Your task to perform on an android device: see creations saved in the google photos Image 0: 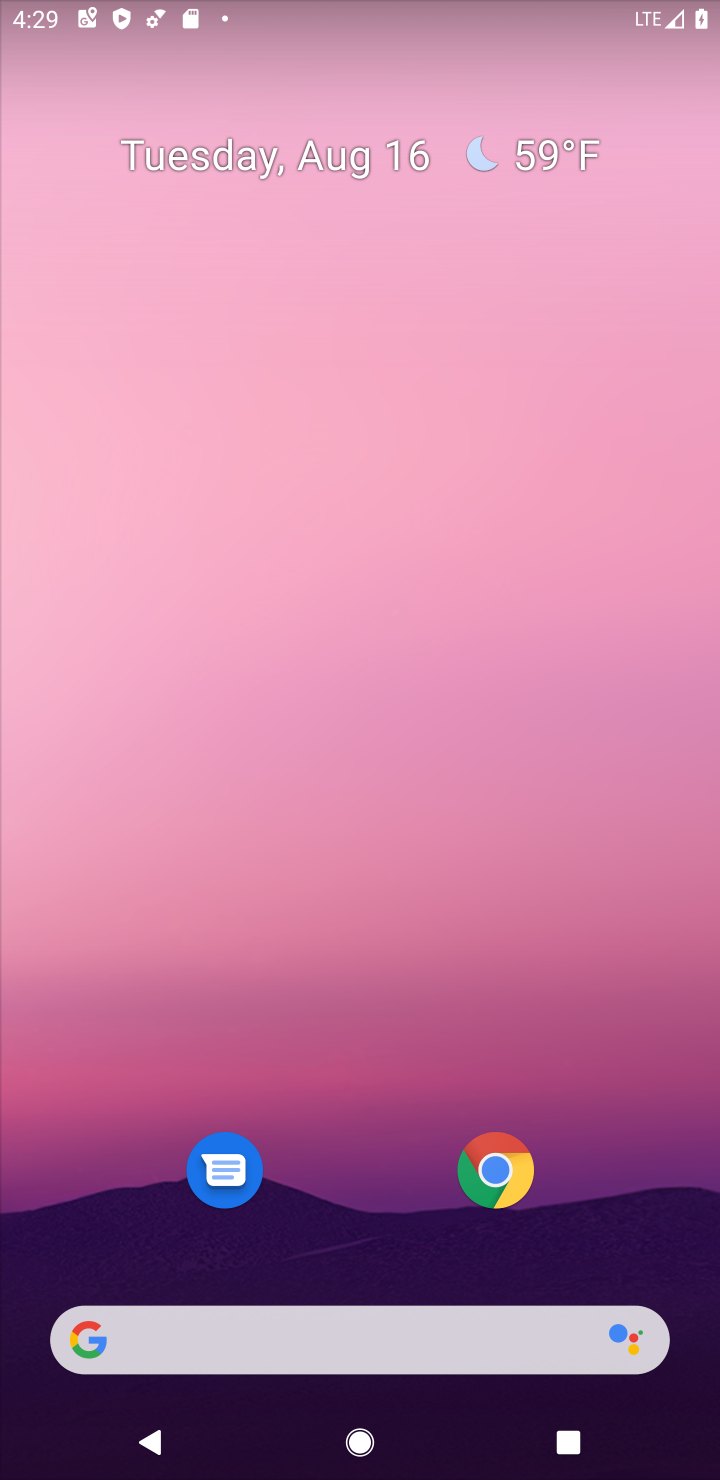
Step 0: drag from (309, 1062) to (585, 15)
Your task to perform on an android device: see creations saved in the google photos Image 1: 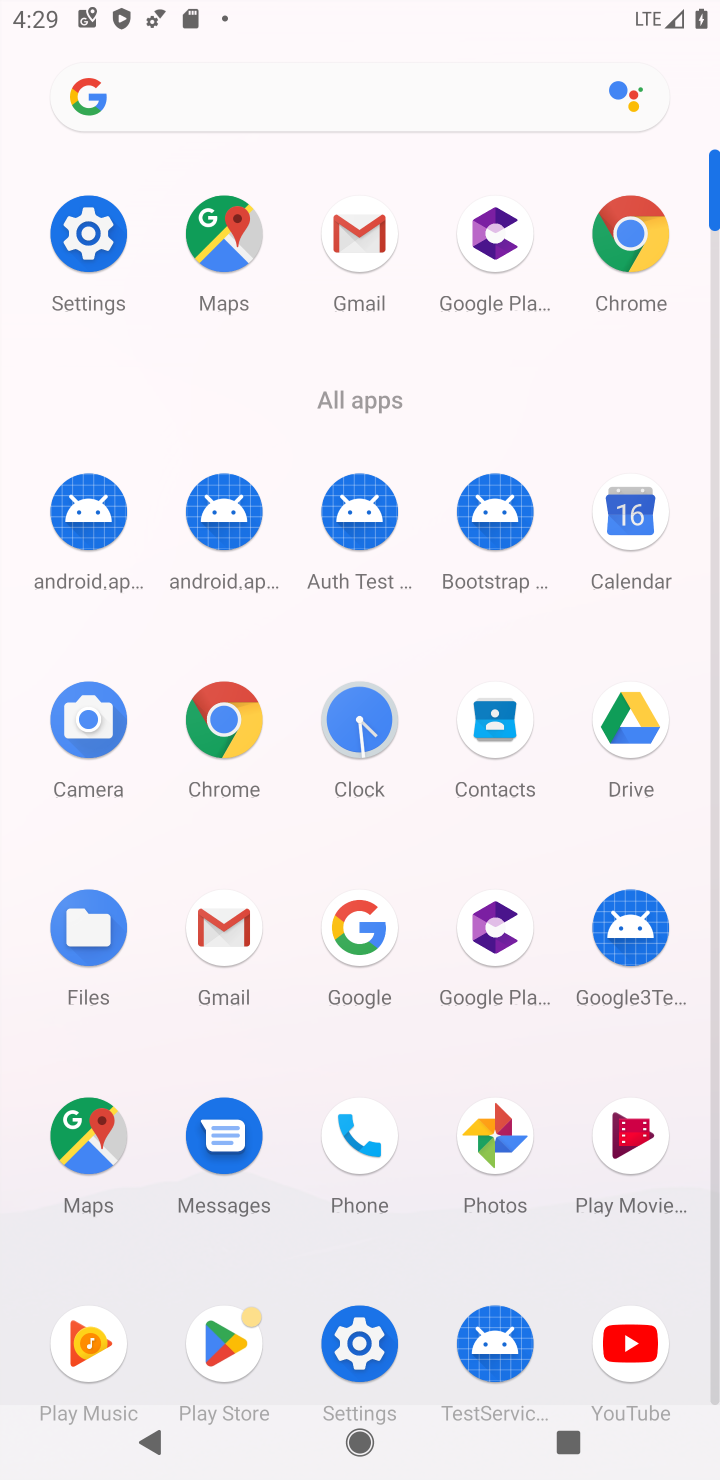
Step 1: click (493, 1315)
Your task to perform on an android device: see creations saved in the google photos Image 2: 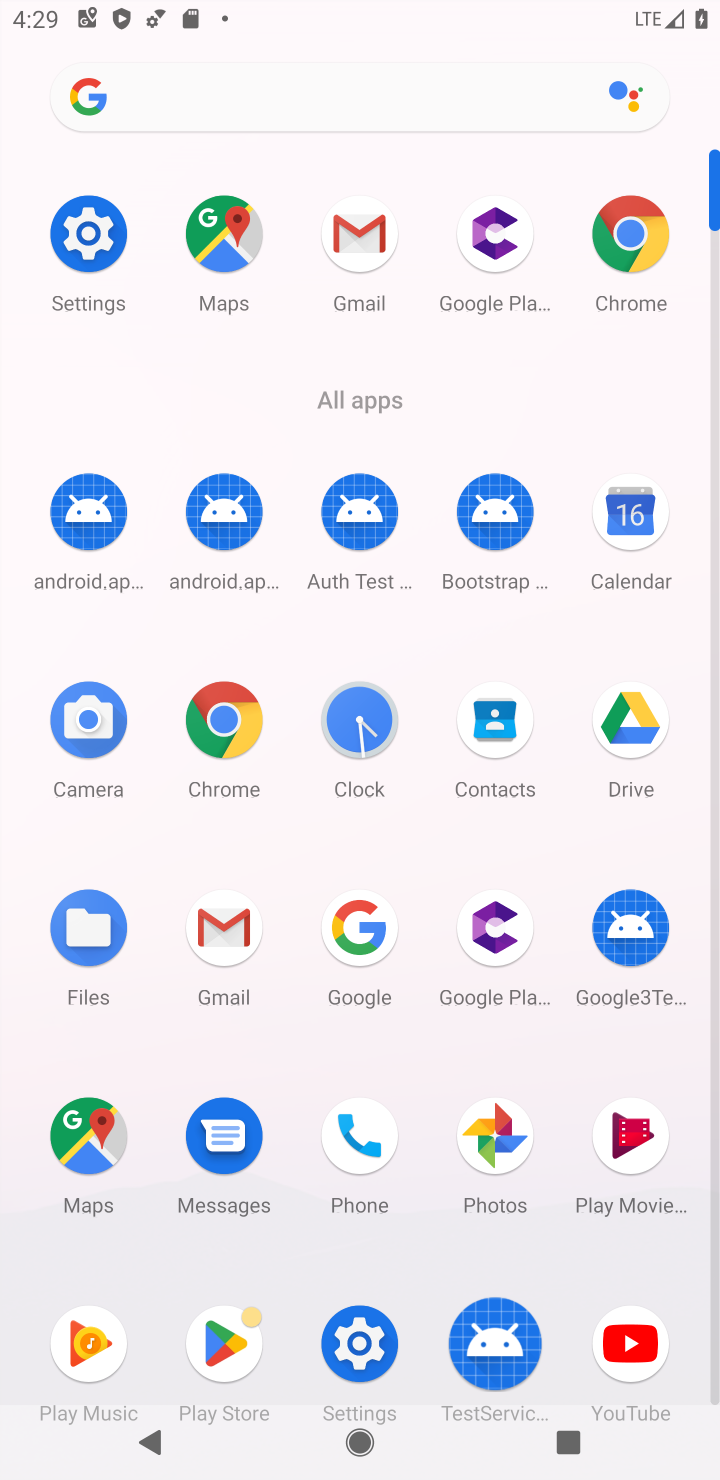
Step 2: click (498, 1163)
Your task to perform on an android device: see creations saved in the google photos Image 3: 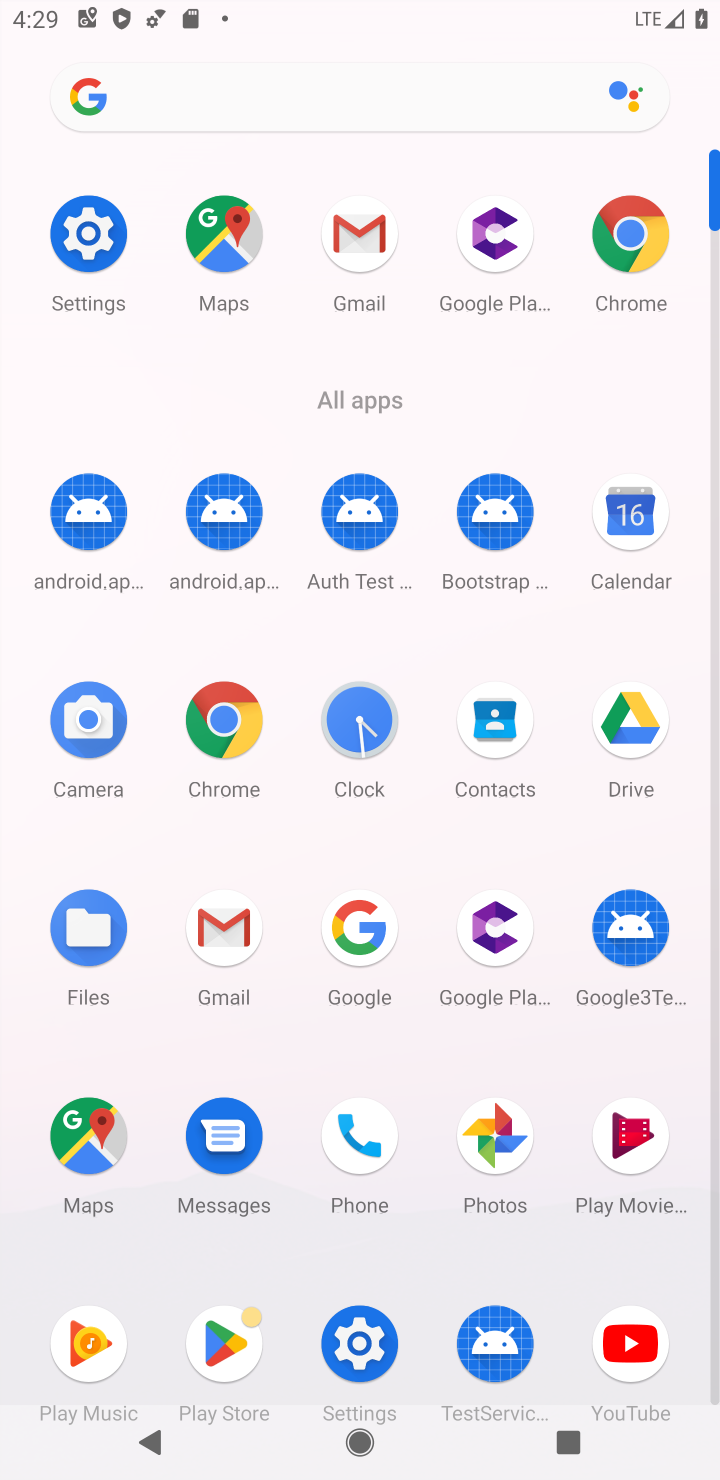
Step 3: click (498, 1160)
Your task to perform on an android device: see creations saved in the google photos Image 4: 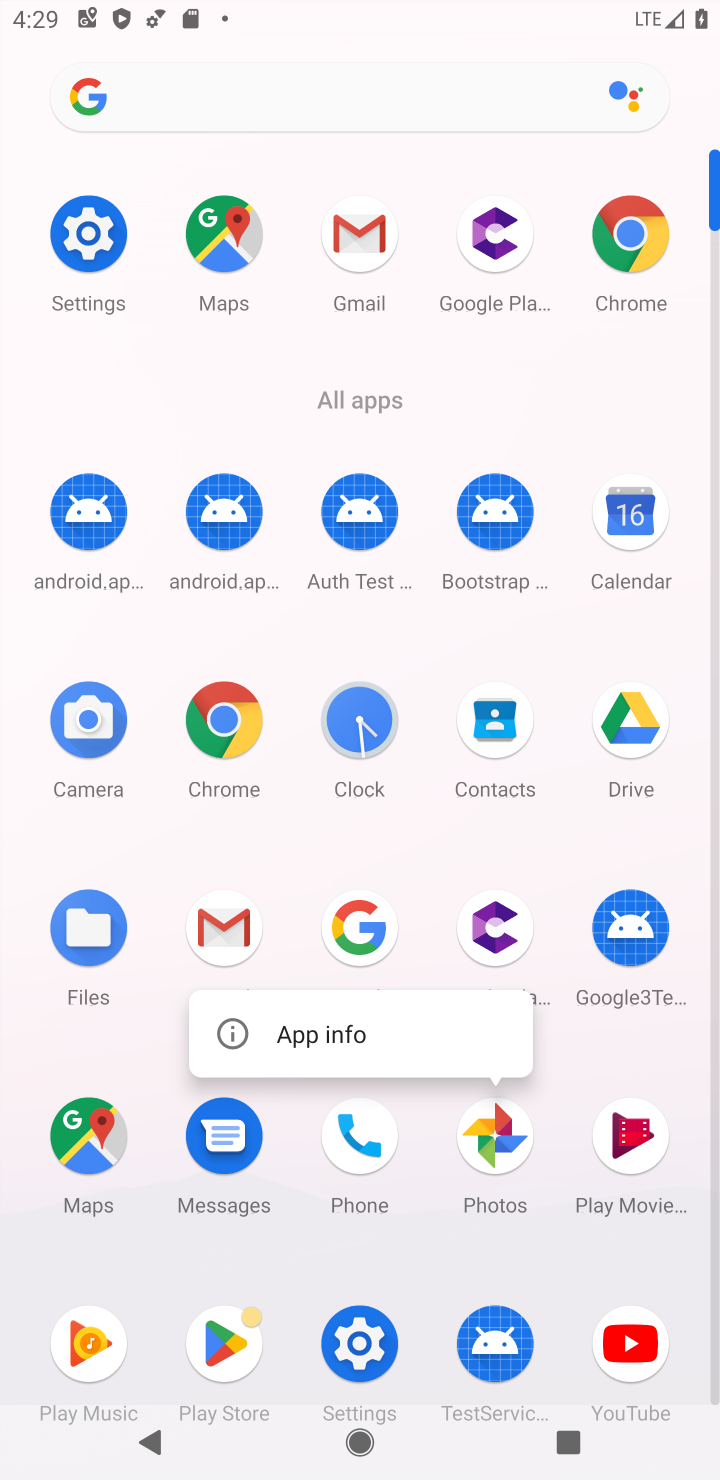
Step 4: click (497, 1158)
Your task to perform on an android device: see creations saved in the google photos Image 5: 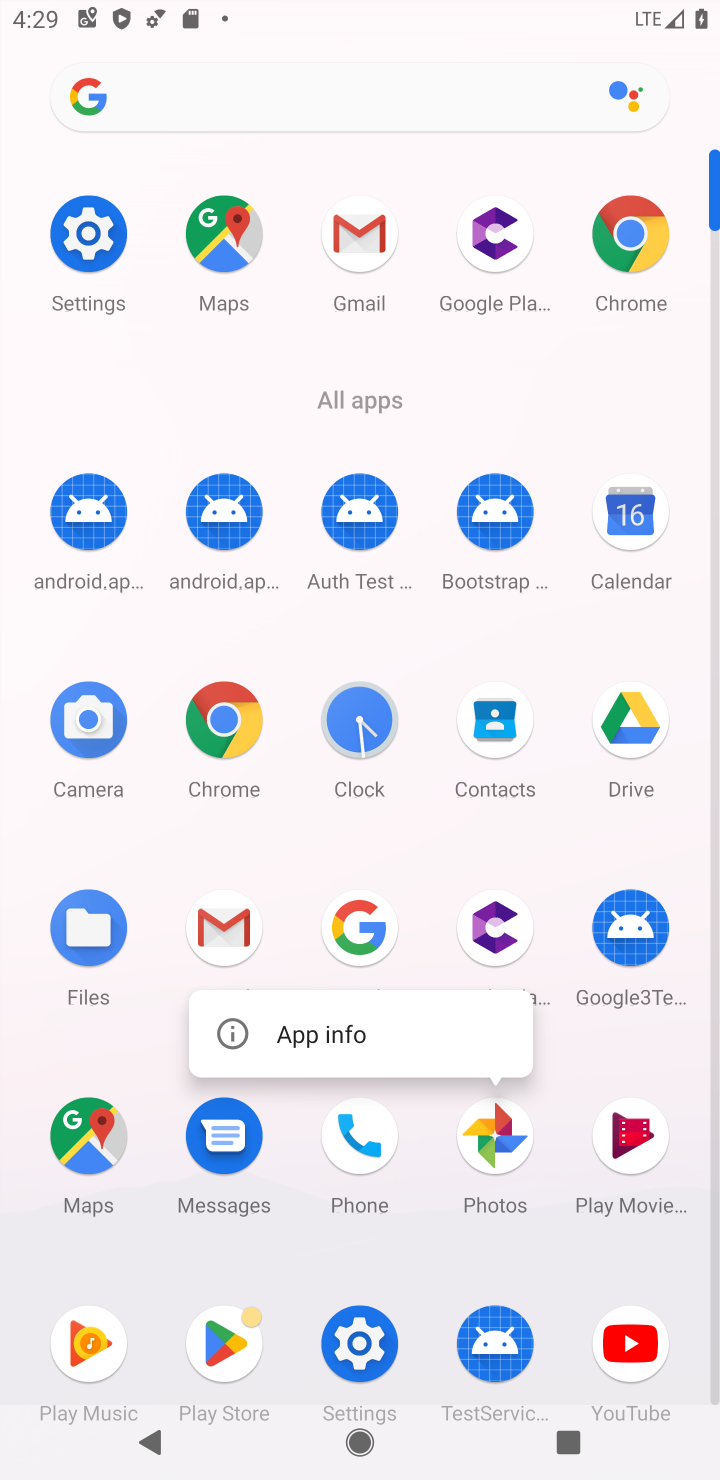
Step 5: click (493, 1142)
Your task to perform on an android device: see creations saved in the google photos Image 6: 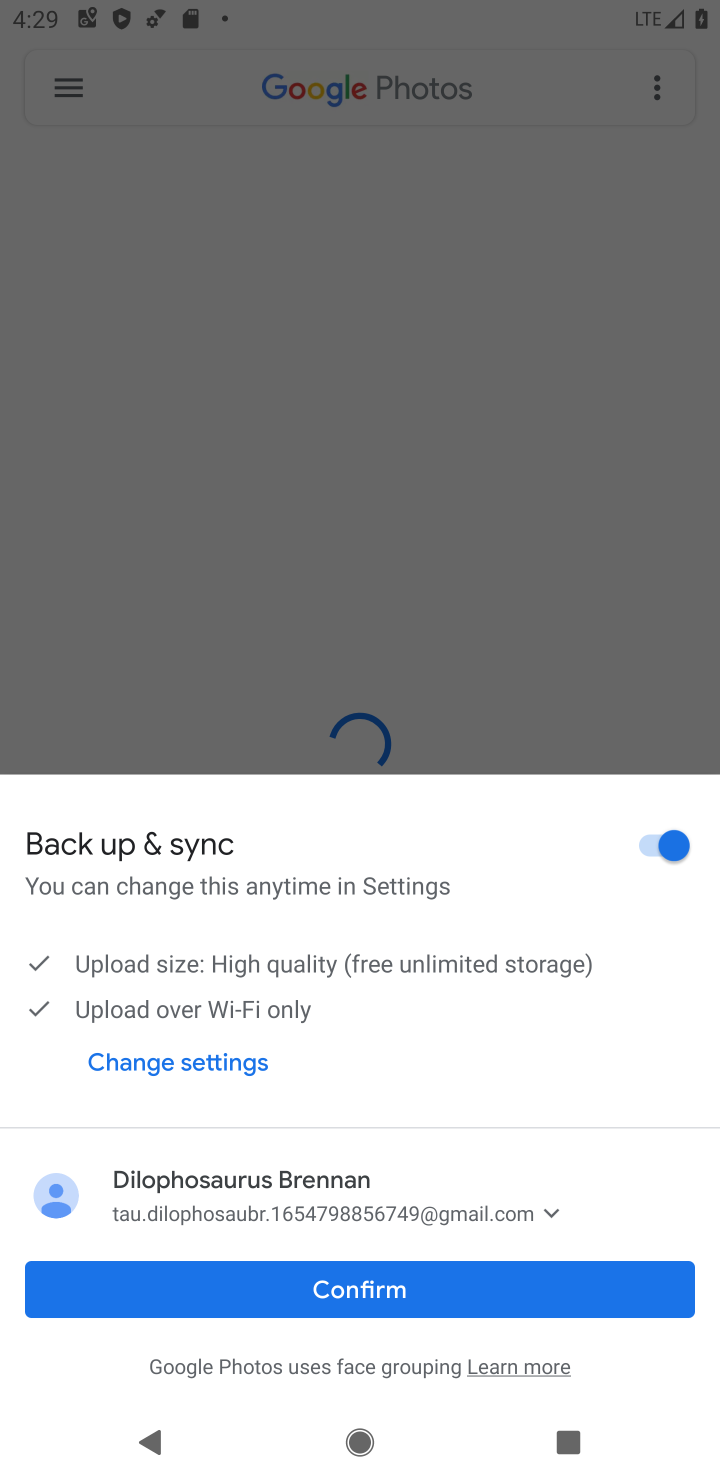
Step 6: click (527, 1294)
Your task to perform on an android device: see creations saved in the google photos Image 7: 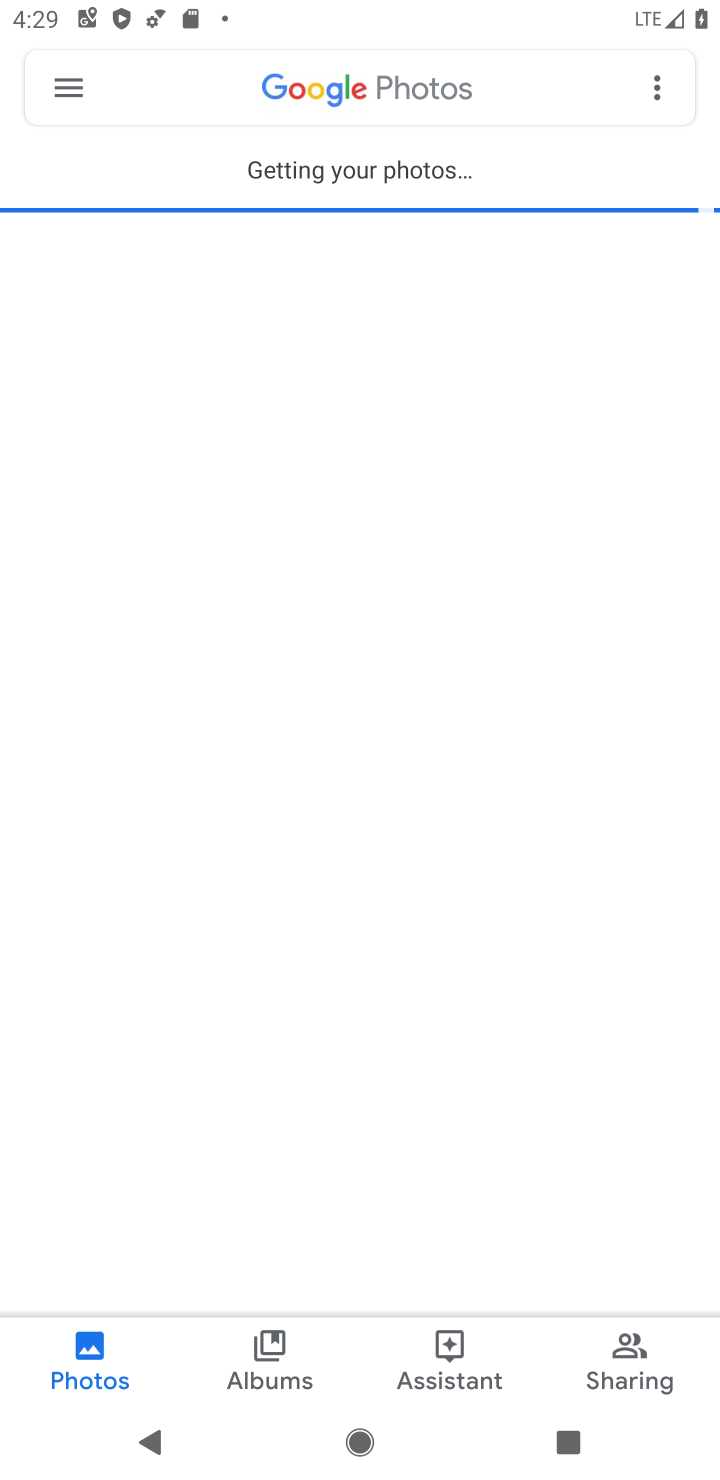
Step 7: click (274, 87)
Your task to perform on an android device: see creations saved in the google photos Image 8: 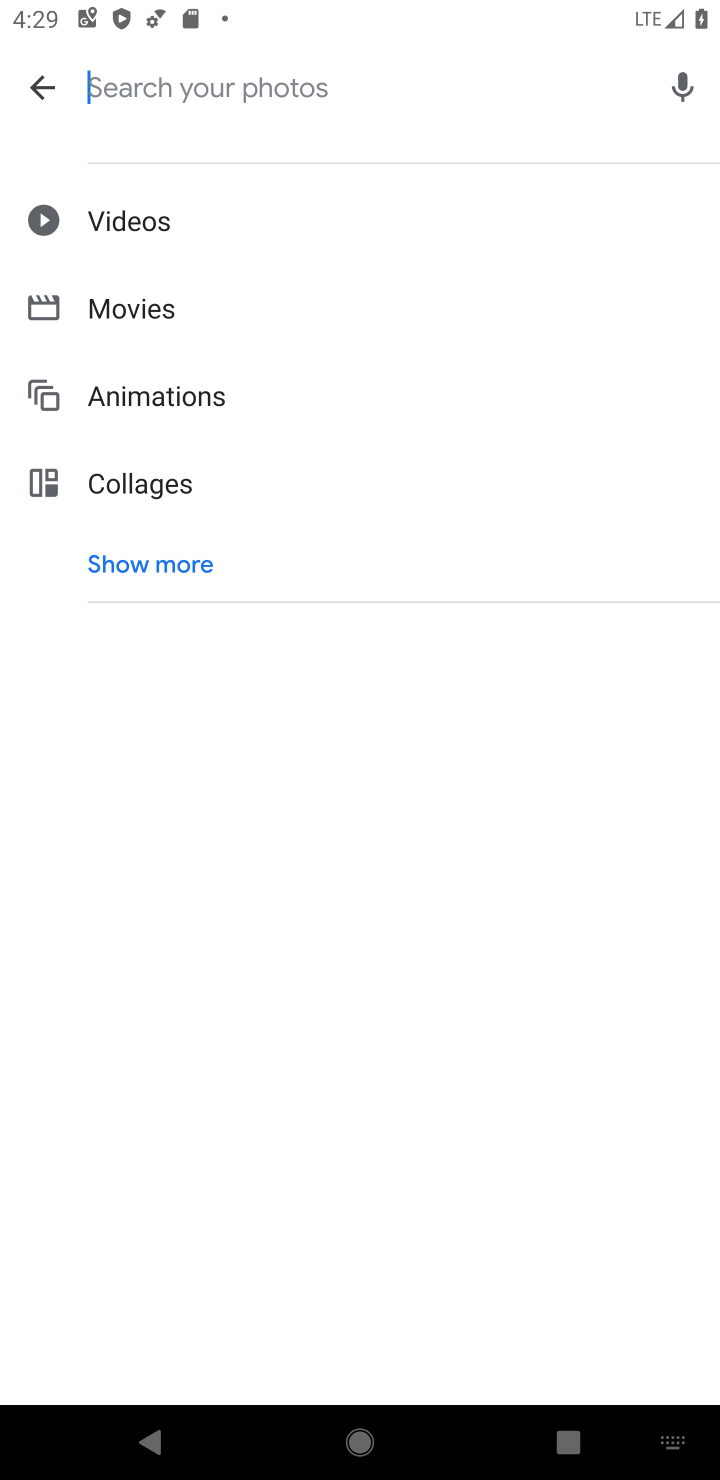
Step 8: click (121, 553)
Your task to perform on an android device: see creations saved in the google photos Image 9: 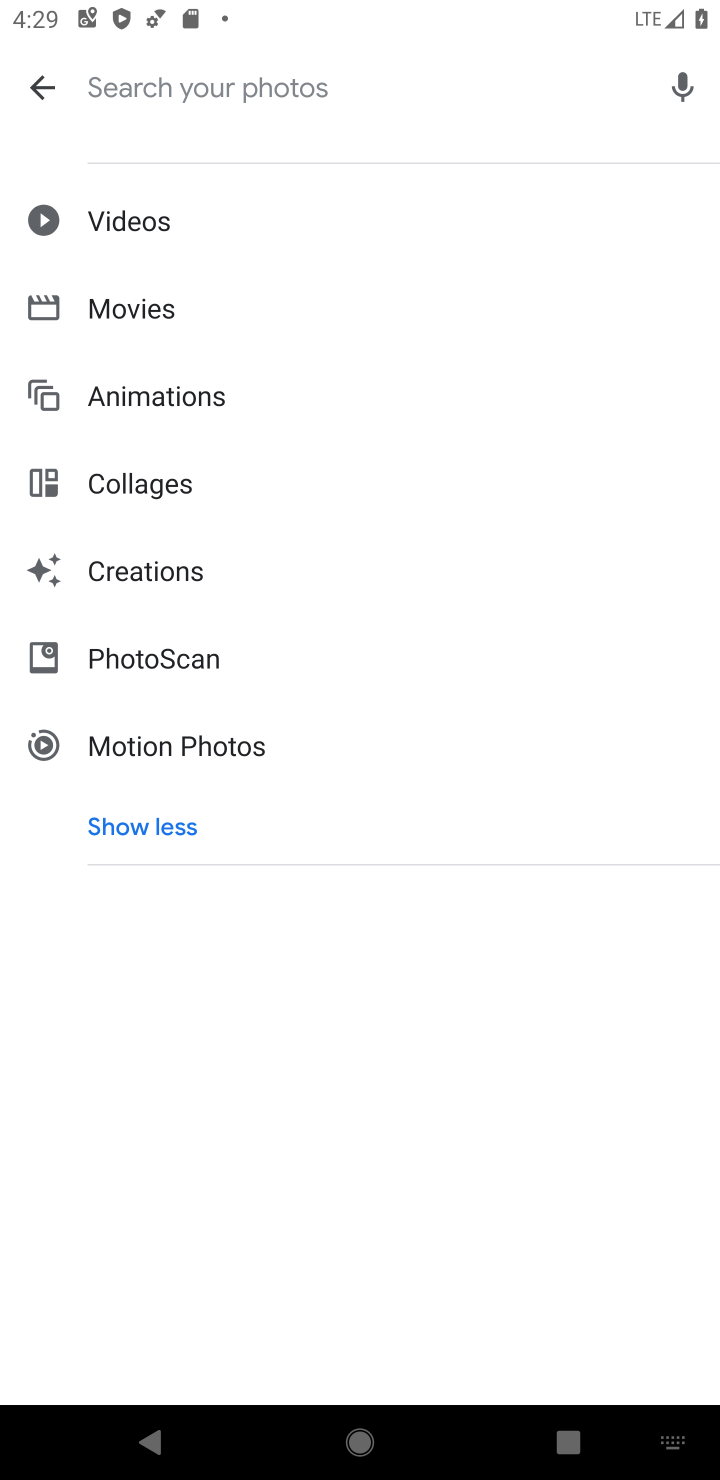
Step 9: click (121, 579)
Your task to perform on an android device: see creations saved in the google photos Image 10: 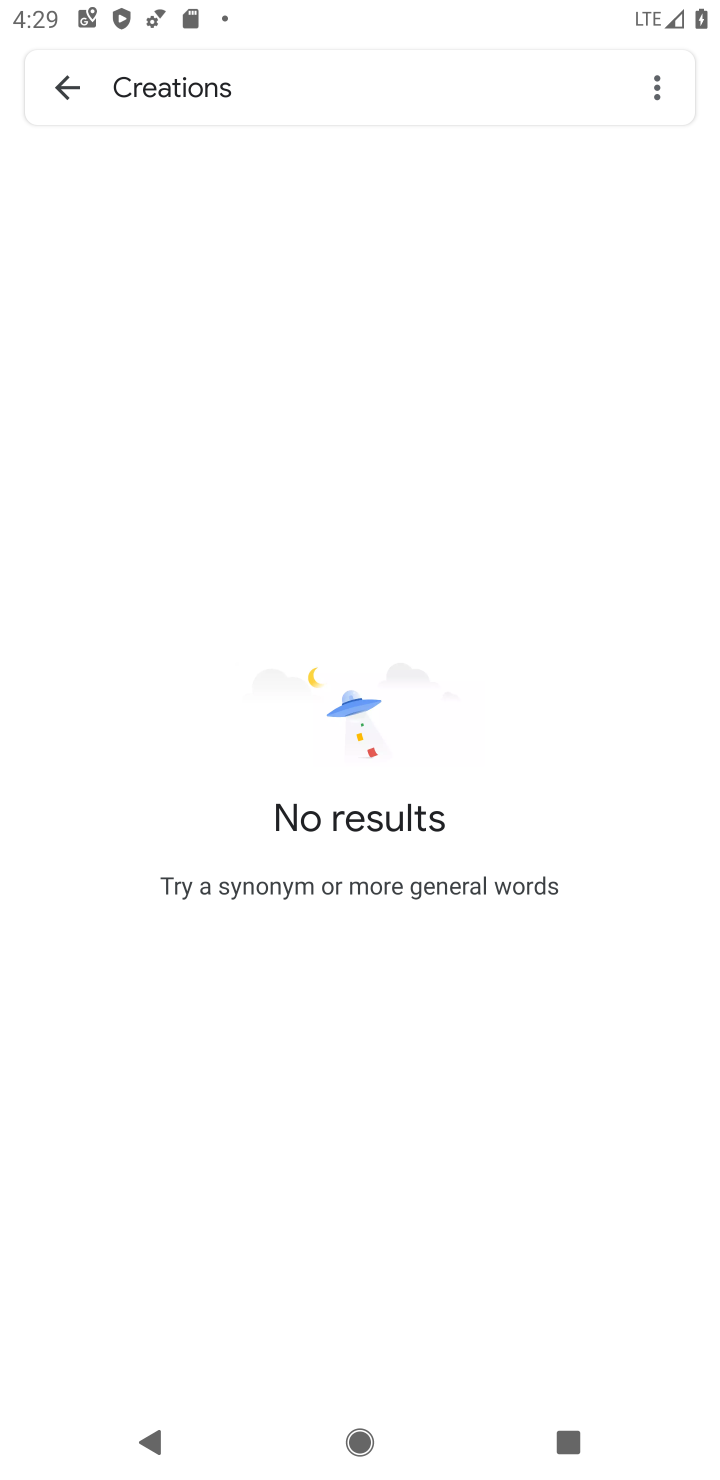
Step 10: task complete